Your task to perform on an android device: Search for seafood restaurants on Google Maps Image 0: 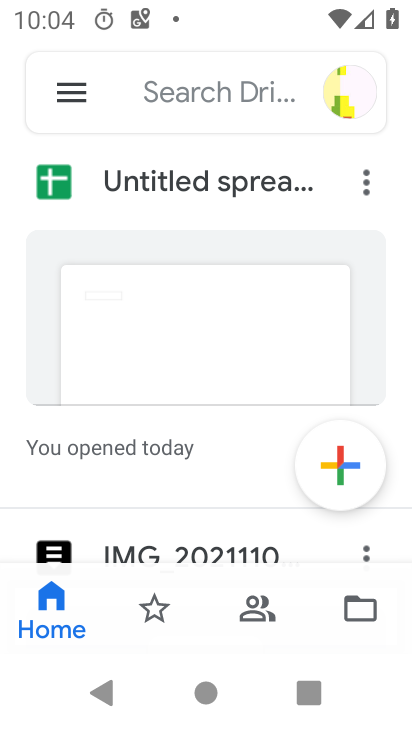
Step 0: press home button
Your task to perform on an android device: Search for seafood restaurants on Google Maps Image 1: 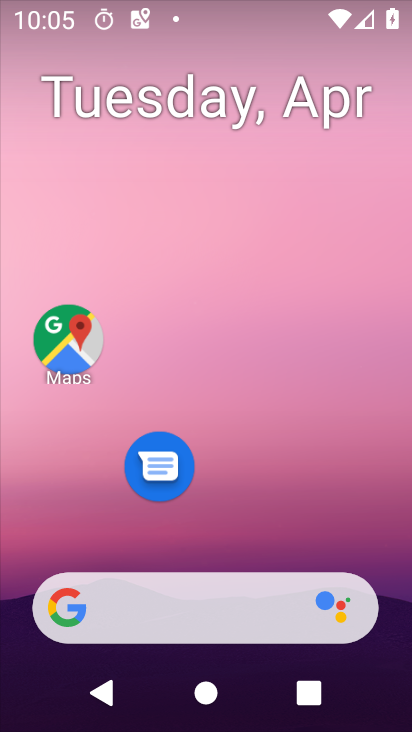
Step 1: click (71, 357)
Your task to perform on an android device: Search for seafood restaurants on Google Maps Image 2: 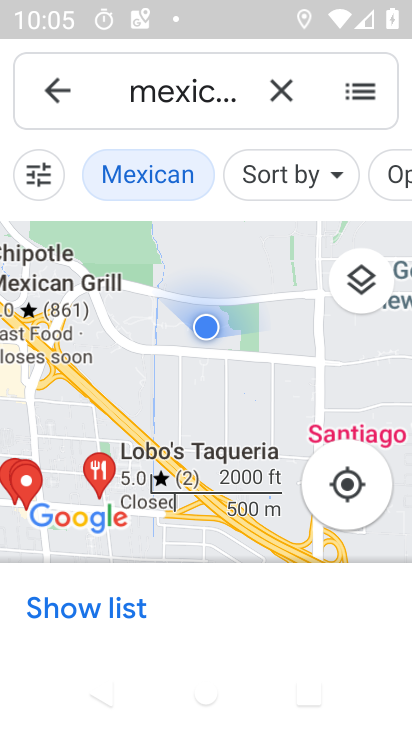
Step 2: click (278, 99)
Your task to perform on an android device: Search for seafood restaurants on Google Maps Image 3: 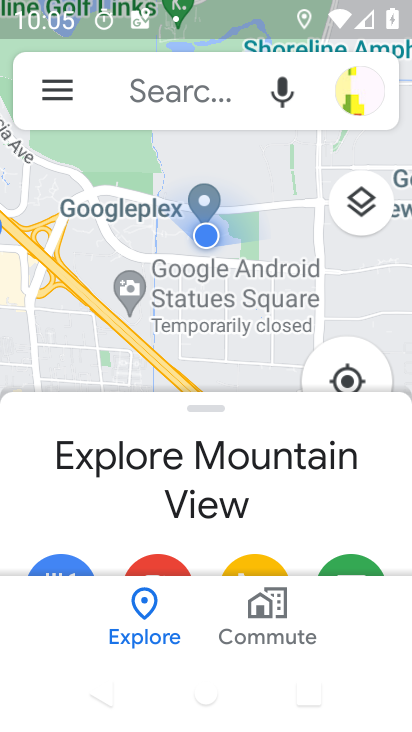
Step 3: click (203, 104)
Your task to perform on an android device: Search for seafood restaurants on Google Maps Image 4: 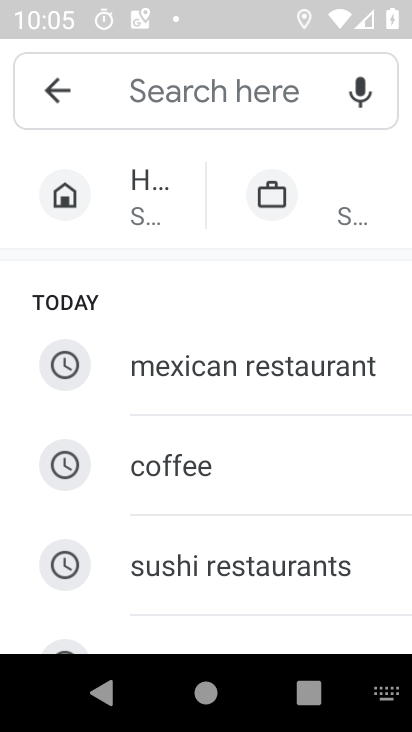
Step 4: type "seafood"
Your task to perform on an android device: Search for seafood restaurants on Google Maps Image 5: 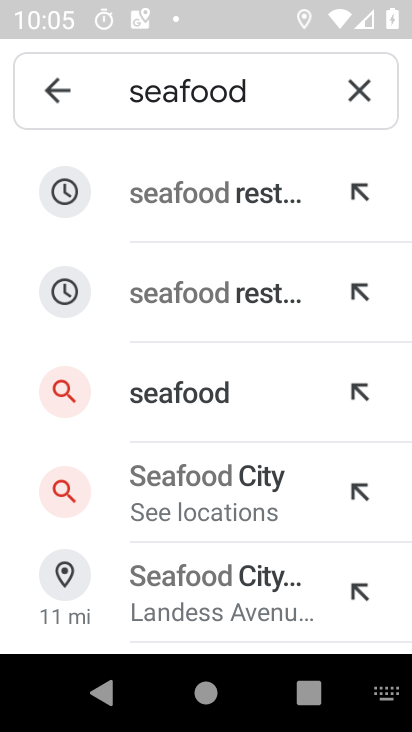
Step 5: click (158, 186)
Your task to perform on an android device: Search for seafood restaurants on Google Maps Image 6: 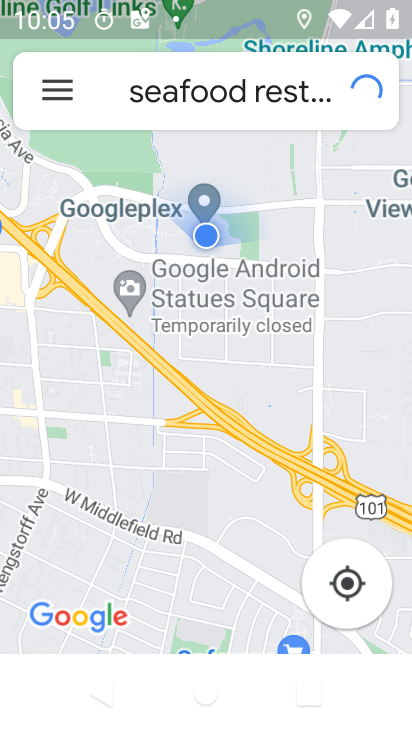
Step 6: task complete